Your task to perform on an android device: turn on notifications settings in the gmail app Image 0: 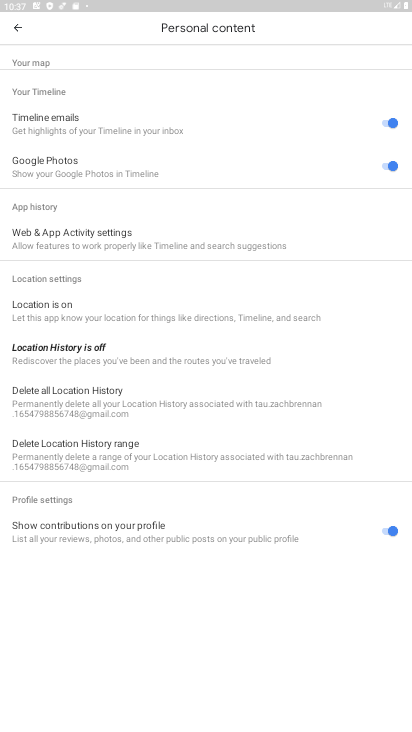
Step 0: press home button
Your task to perform on an android device: turn on notifications settings in the gmail app Image 1: 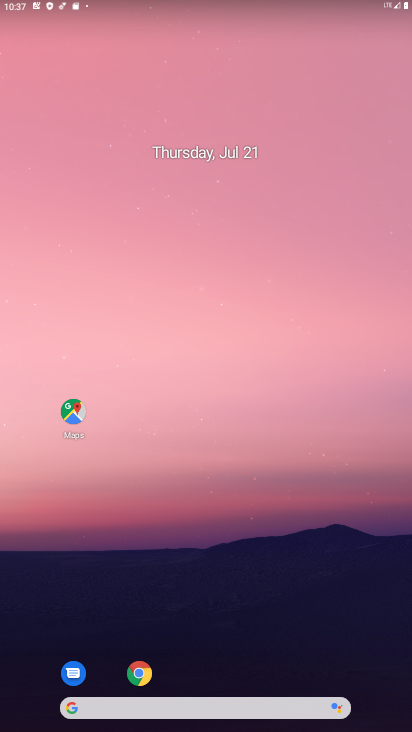
Step 1: drag from (228, 643) to (197, 164)
Your task to perform on an android device: turn on notifications settings in the gmail app Image 2: 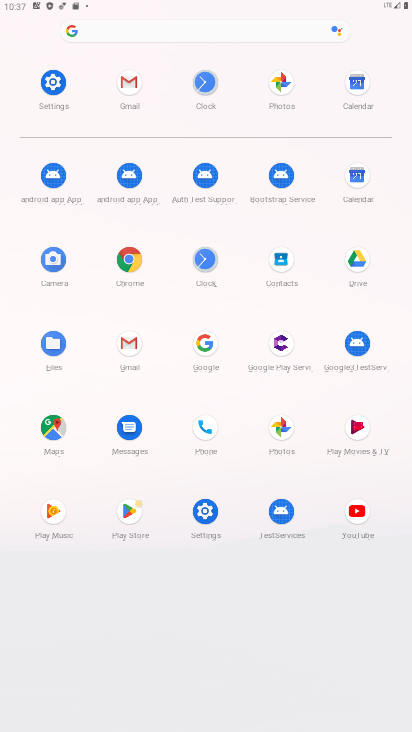
Step 2: click (148, 86)
Your task to perform on an android device: turn on notifications settings in the gmail app Image 3: 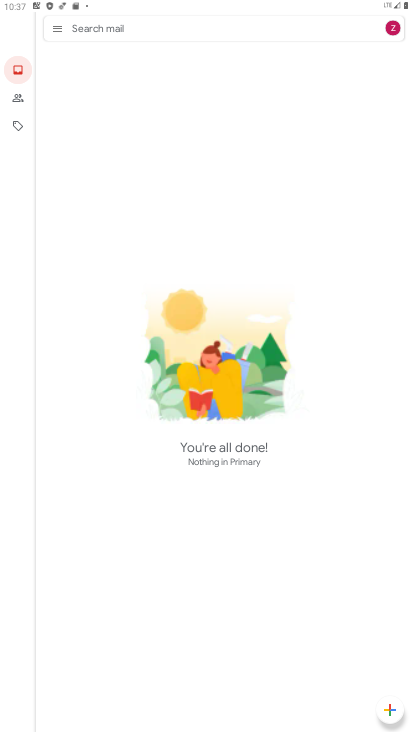
Step 3: click (63, 34)
Your task to perform on an android device: turn on notifications settings in the gmail app Image 4: 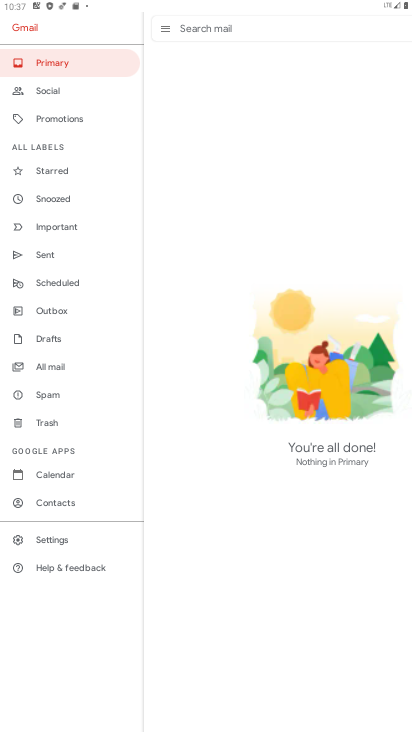
Step 4: click (51, 542)
Your task to perform on an android device: turn on notifications settings in the gmail app Image 5: 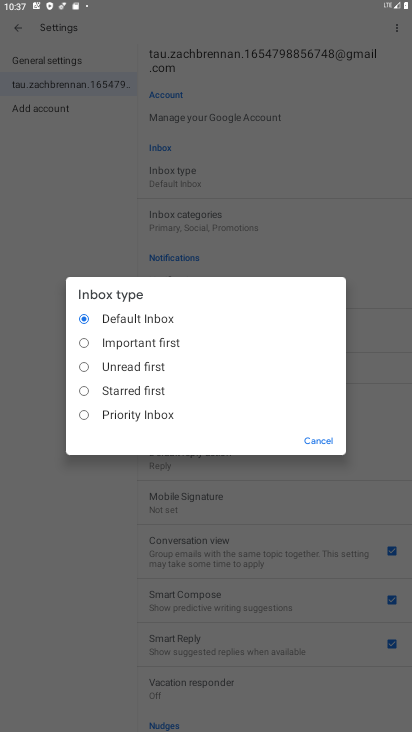
Step 5: click (310, 429)
Your task to perform on an android device: turn on notifications settings in the gmail app Image 6: 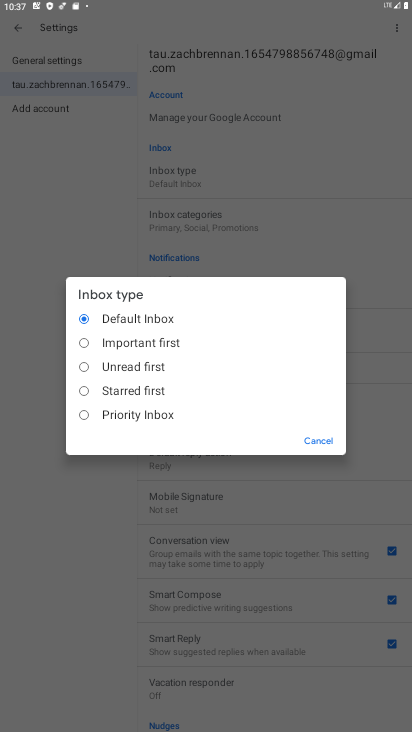
Step 6: click (321, 445)
Your task to perform on an android device: turn on notifications settings in the gmail app Image 7: 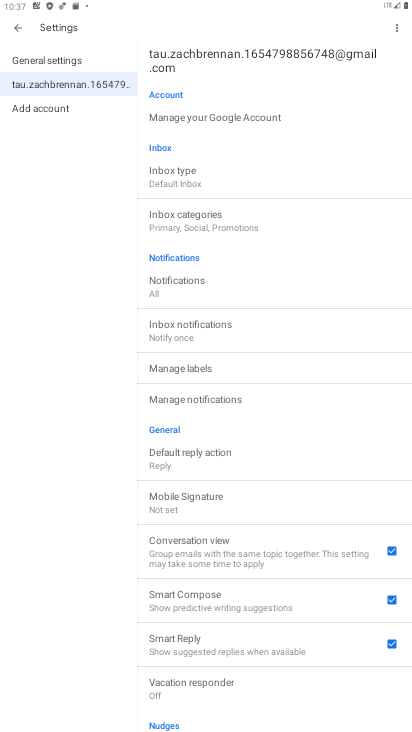
Step 7: click (245, 403)
Your task to perform on an android device: turn on notifications settings in the gmail app Image 8: 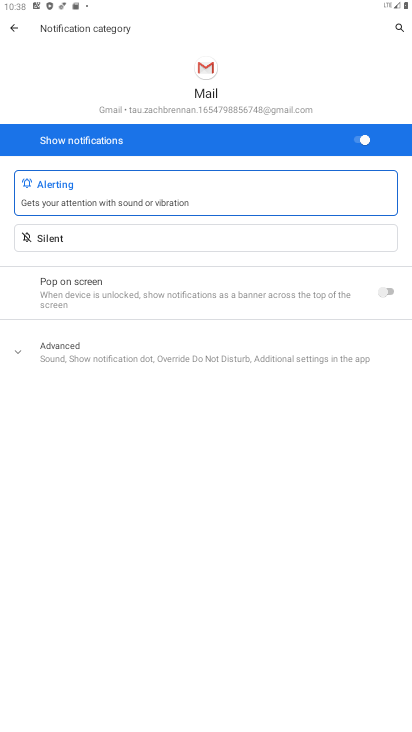
Step 8: task complete